Your task to perform on an android device: allow cookies in the chrome app Image 0: 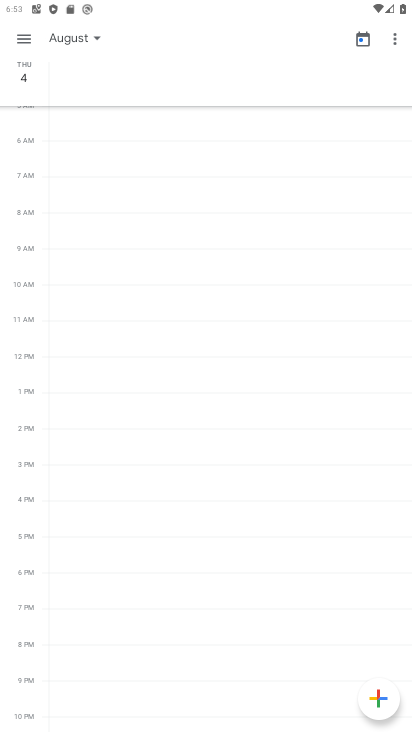
Step 0: press home button
Your task to perform on an android device: allow cookies in the chrome app Image 1: 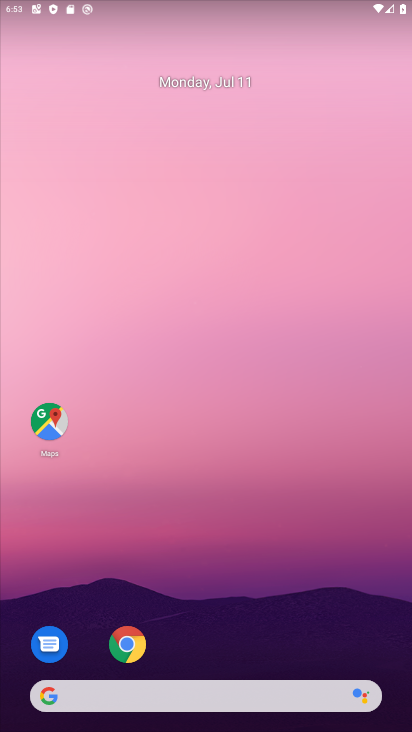
Step 1: drag from (176, 692) to (312, 5)
Your task to perform on an android device: allow cookies in the chrome app Image 2: 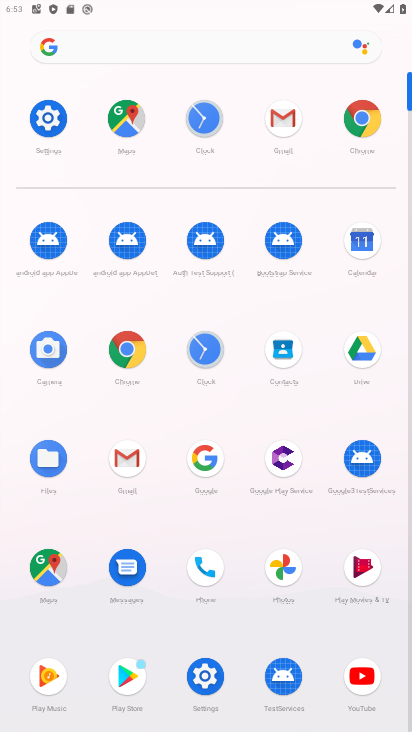
Step 2: click (129, 359)
Your task to perform on an android device: allow cookies in the chrome app Image 3: 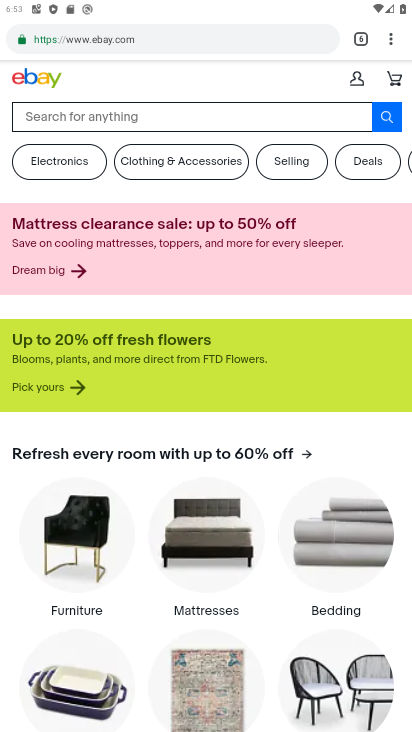
Step 3: drag from (393, 38) to (292, 470)
Your task to perform on an android device: allow cookies in the chrome app Image 4: 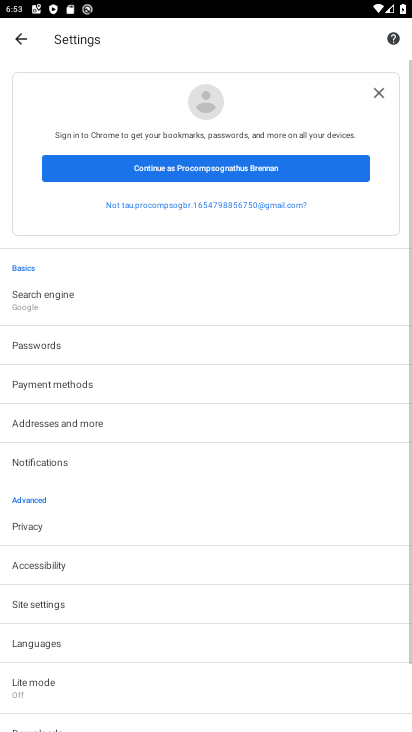
Step 4: click (60, 606)
Your task to perform on an android device: allow cookies in the chrome app Image 5: 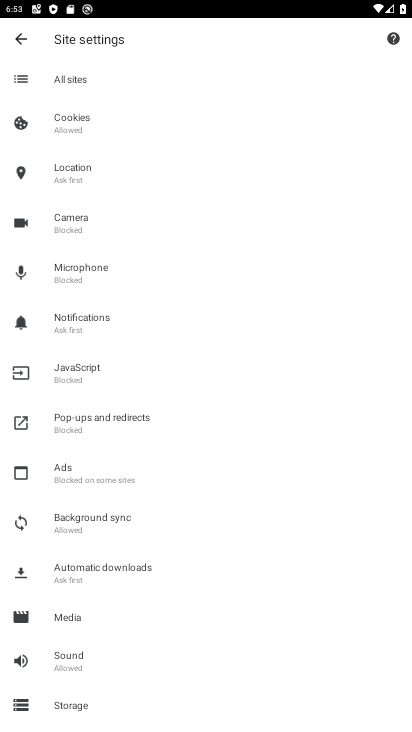
Step 5: click (69, 120)
Your task to perform on an android device: allow cookies in the chrome app Image 6: 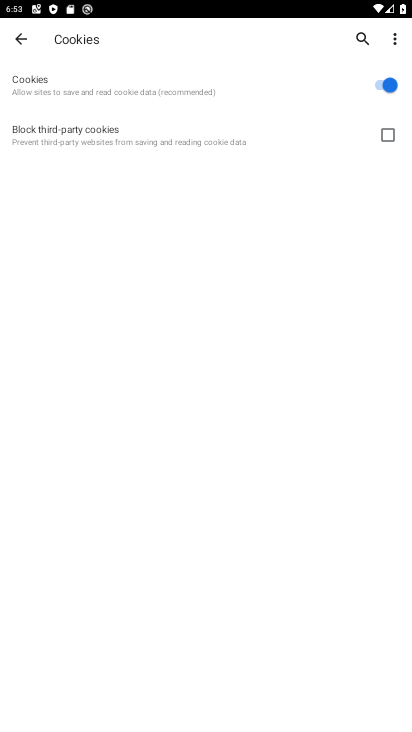
Step 6: task complete